Your task to perform on an android device: toggle show notifications on the lock screen Image 0: 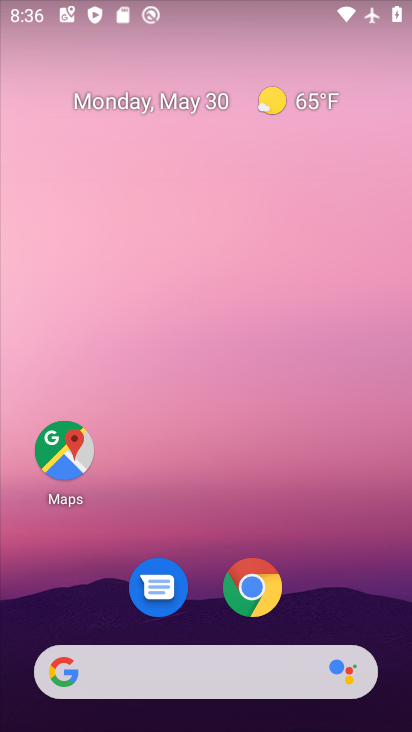
Step 0: press home button
Your task to perform on an android device: toggle show notifications on the lock screen Image 1: 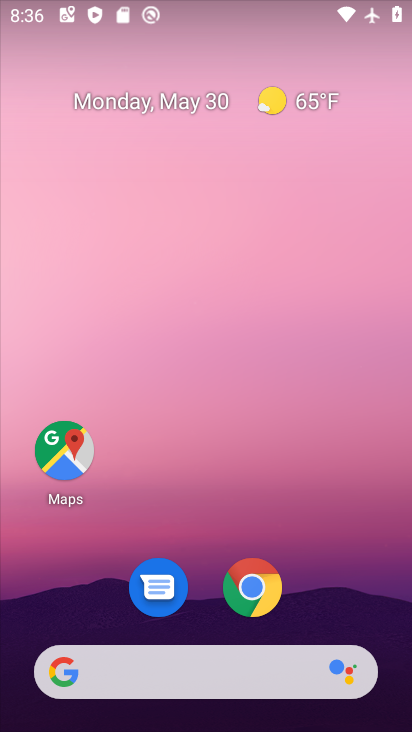
Step 1: drag from (196, 679) to (203, 111)
Your task to perform on an android device: toggle show notifications on the lock screen Image 2: 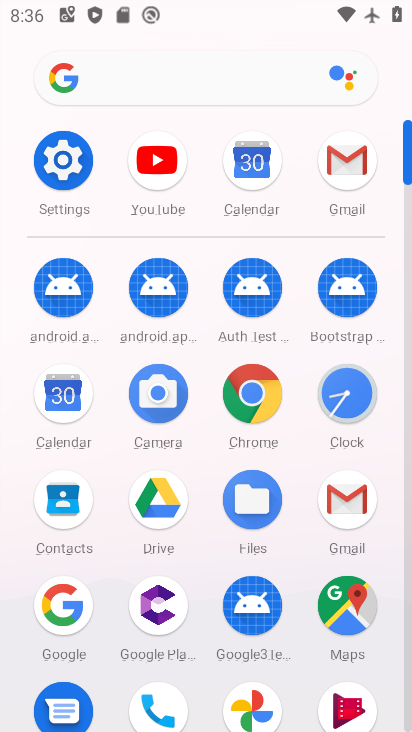
Step 2: click (51, 168)
Your task to perform on an android device: toggle show notifications on the lock screen Image 3: 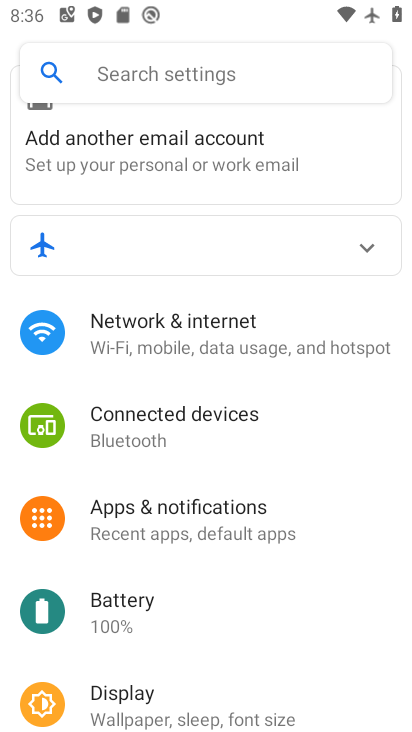
Step 3: click (211, 511)
Your task to perform on an android device: toggle show notifications on the lock screen Image 4: 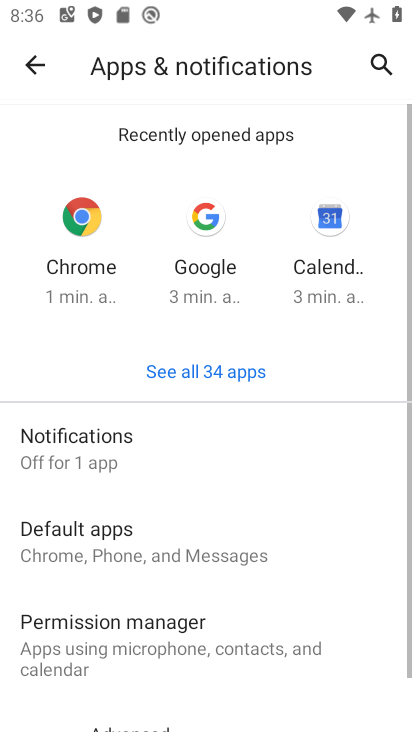
Step 4: click (68, 455)
Your task to perform on an android device: toggle show notifications on the lock screen Image 5: 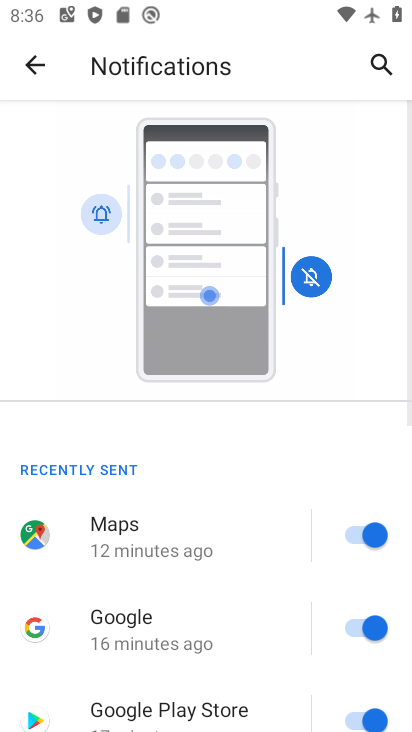
Step 5: drag from (209, 666) to (276, 123)
Your task to perform on an android device: toggle show notifications on the lock screen Image 6: 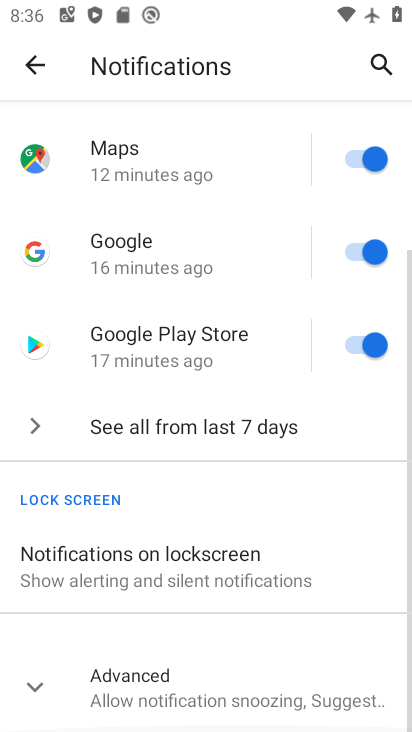
Step 6: click (154, 553)
Your task to perform on an android device: toggle show notifications on the lock screen Image 7: 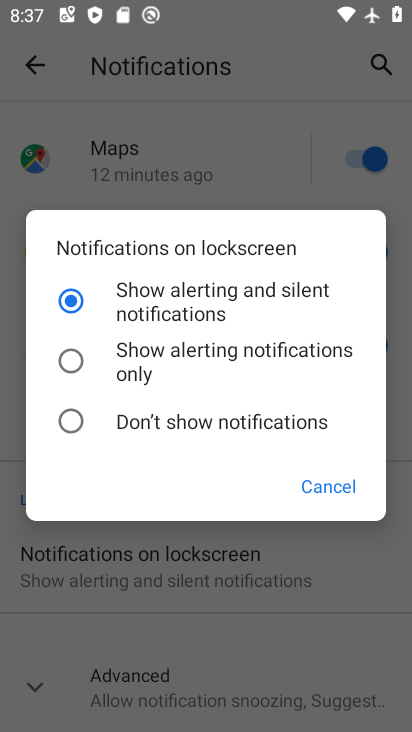
Step 7: click (66, 424)
Your task to perform on an android device: toggle show notifications on the lock screen Image 8: 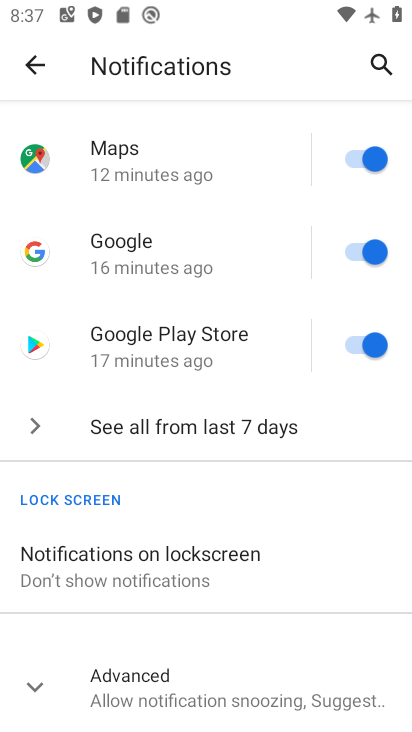
Step 8: task complete